Your task to perform on an android device: check storage Image 0: 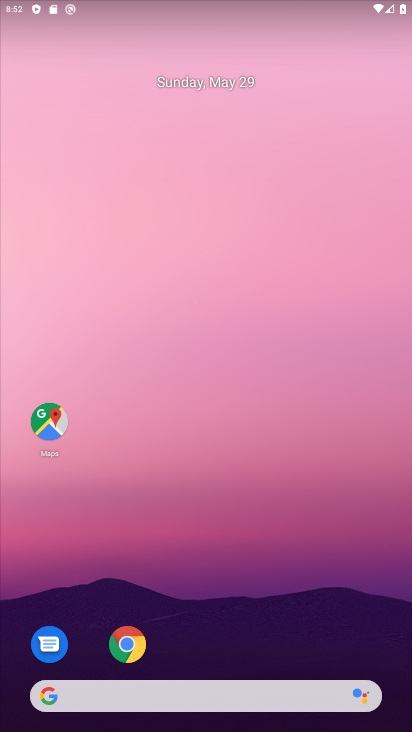
Step 0: drag from (245, 415) to (215, 11)
Your task to perform on an android device: check storage Image 1: 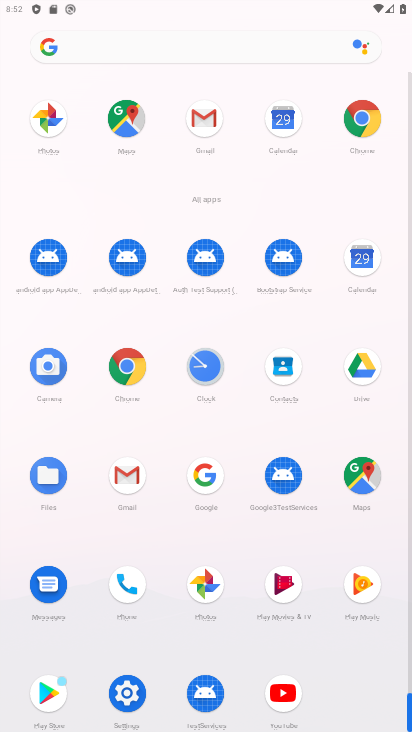
Step 1: drag from (19, 616) to (19, 286)
Your task to perform on an android device: check storage Image 2: 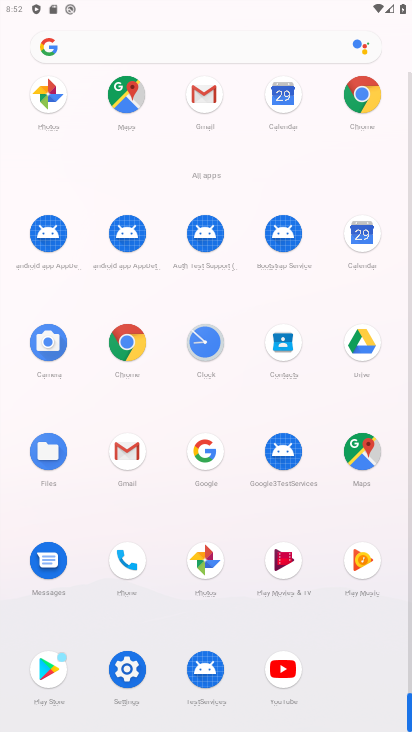
Step 2: drag from (20, 217) to (29, 538)
Your task to perform on an android device: check storage Image 3: 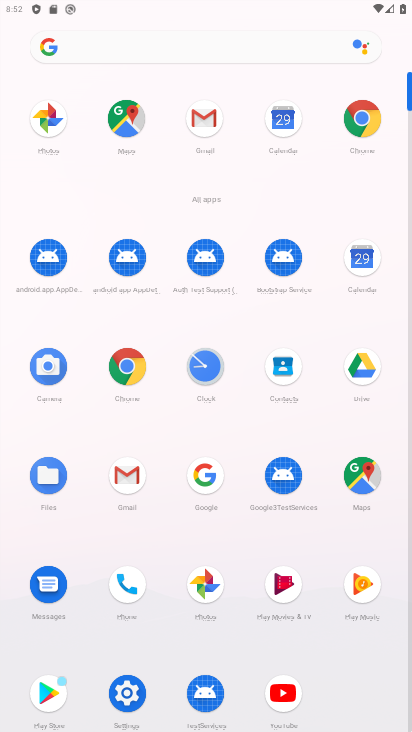
Step 3: click (123, 689)
Your task to perform on an android device: check storage Image 4: 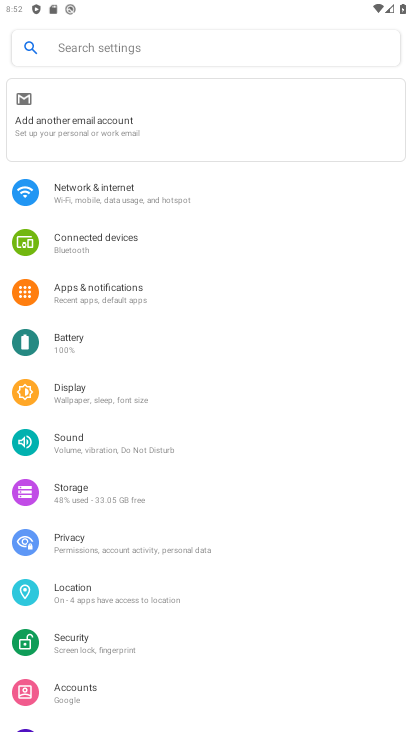
Step 4: click (114, 495)
Your task to perform on an android device: check storage Image 5: 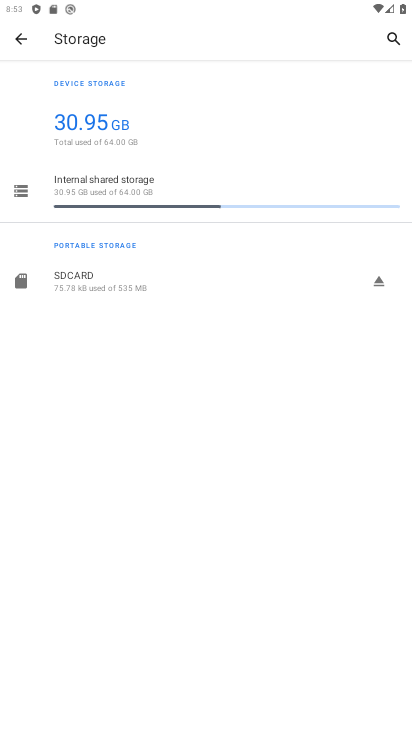
Step 5: task complete